Your task to perform on an android device: turn off airplane mode Image 0: 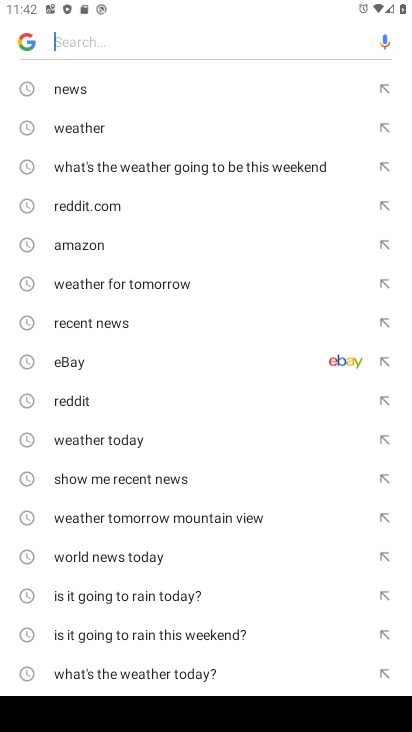
Step 0: press home button
Your task to perform on an android device: turn off airplane mode Image 1: 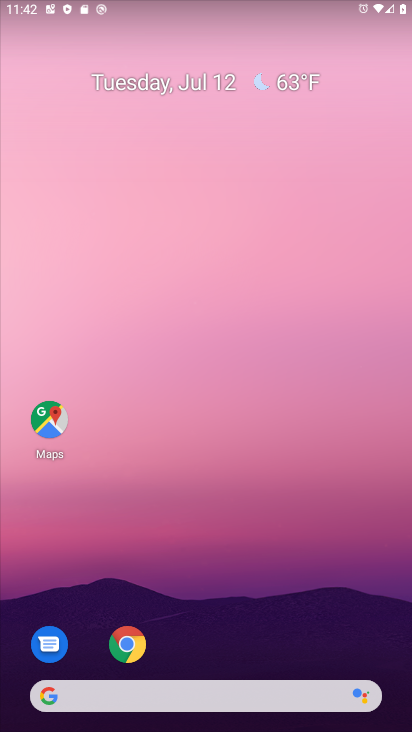
Step 1: drag from (188, 688) to (245, 113)
Your task to perform on an android device: turn off airplane mode Image 2: 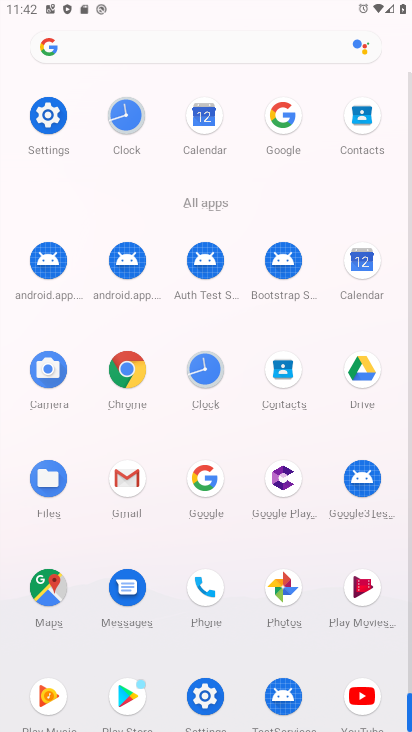
Step 2: click (205, 697)
Your task to perform on an android device: turn off airplane mode Image 3: 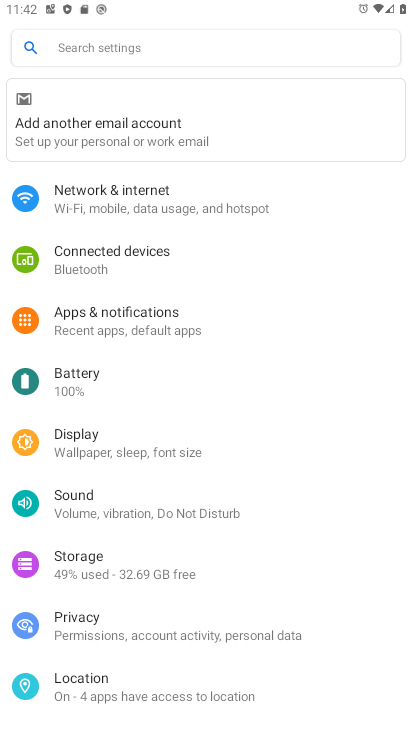
Step 3: click (146, 217)
Your task to perform on an android device: turn off airplane mode Image 4: 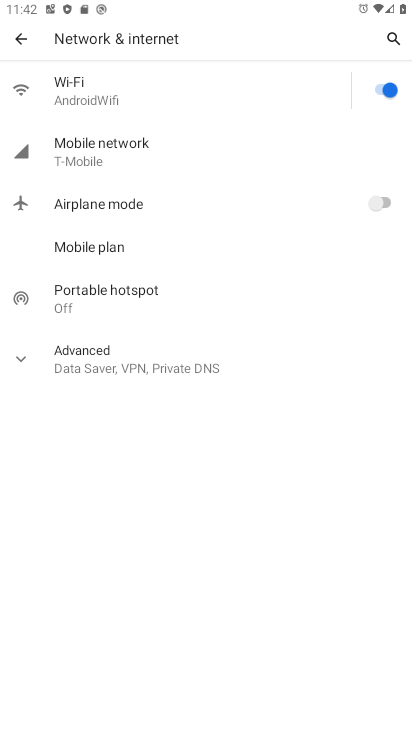
Step 4: task complete